Your task to perform on an android device: find which apps use the phone's location Image 0: 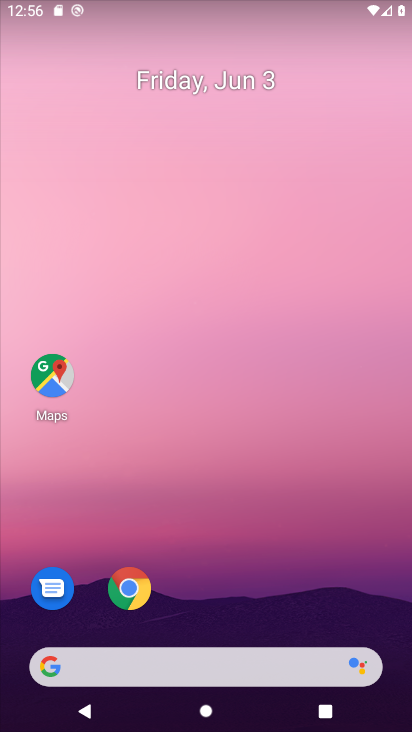
Step 0: drag from (220, 509) to (167, 226)
Your task to perform on an android device: find which apps use the phone's location Image 1: 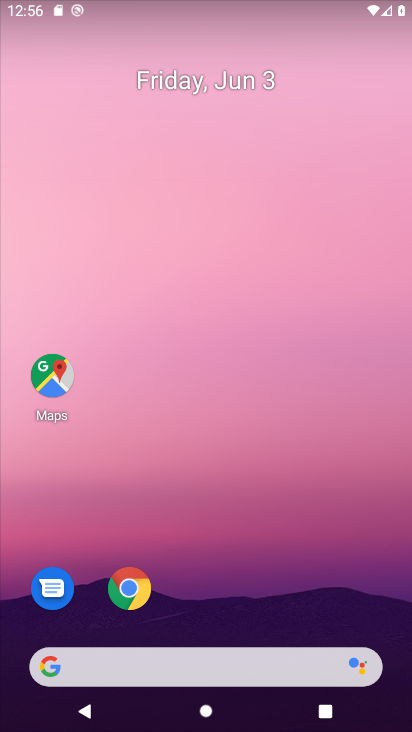
Step 1: drag from (213, 568) to (260, 280)
Your task to perform on an android device: find which apps use the phone's location Image 2: 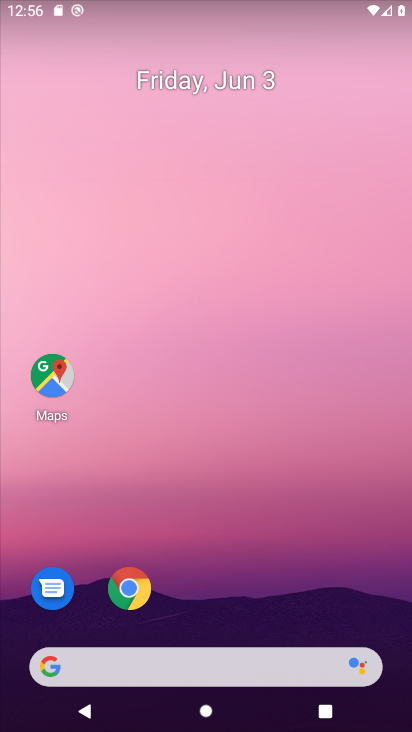
Step 2: drag from (220, 506) to (234, 130)
Your task to perform on an android device: find which apps use the phone's location Image 3: 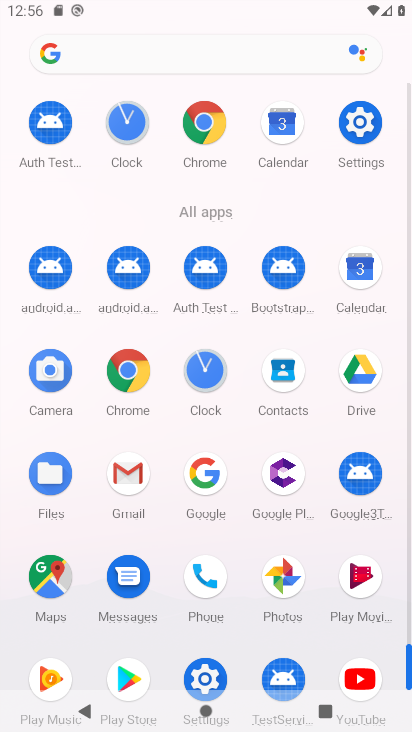
Step 3: click (364, 137)
Your task to perform on an android device: find which apps use the phone's location Image 4: 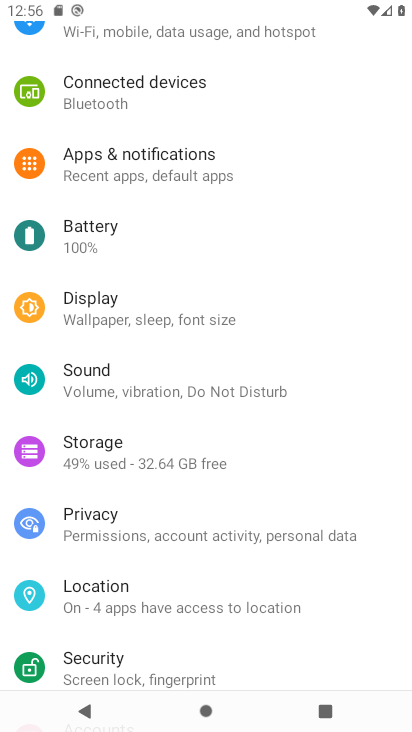
Step 4: click (206, 603)
Your task to perform on an android device: find which apps use the phone's location Image 5: 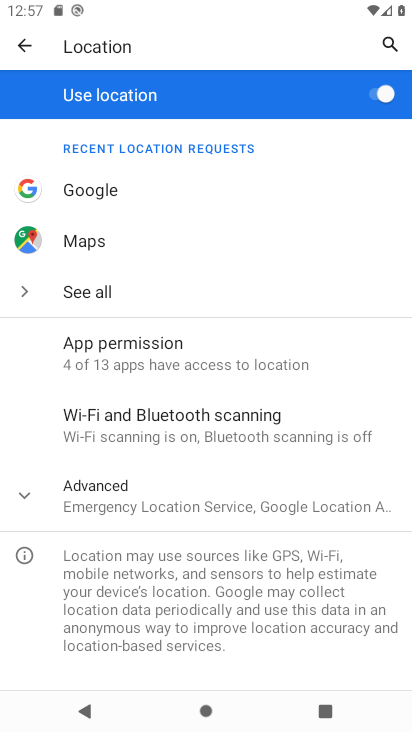
Step 5: click (205, 505)
Your task to perform on an android device: find which apps use the phone's location Image 6: 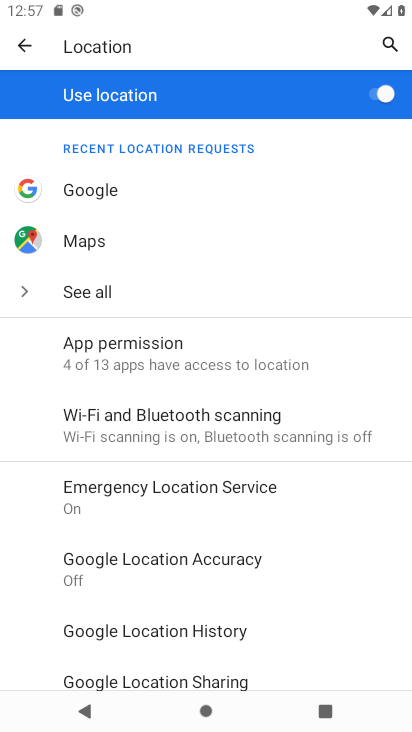
Step 6: click (155, 344)
Your task to perform on an android device: find which apps use the phone's location Image 7: 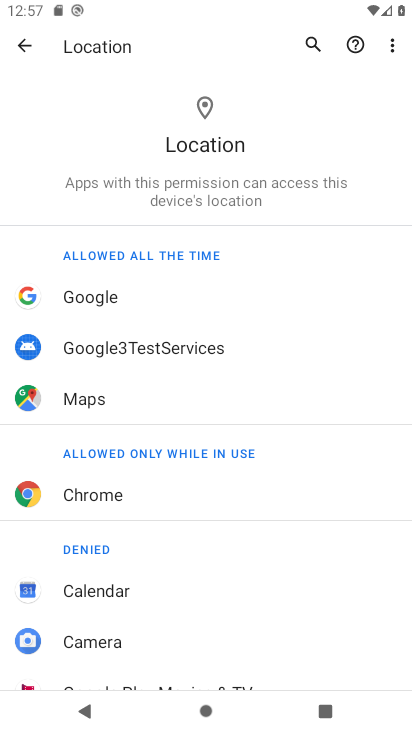
Step 7: task complete